Your task to perform on an android device: change text size in settings app Image 0: 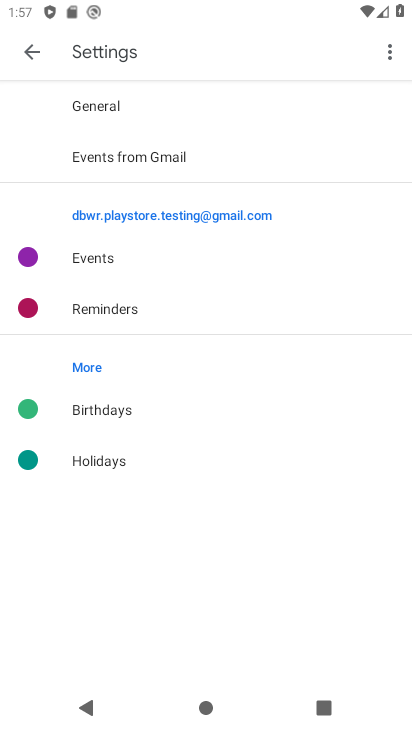
Step 0: press home button
Your task to perform on an android device: change text size in settings app Image 1: 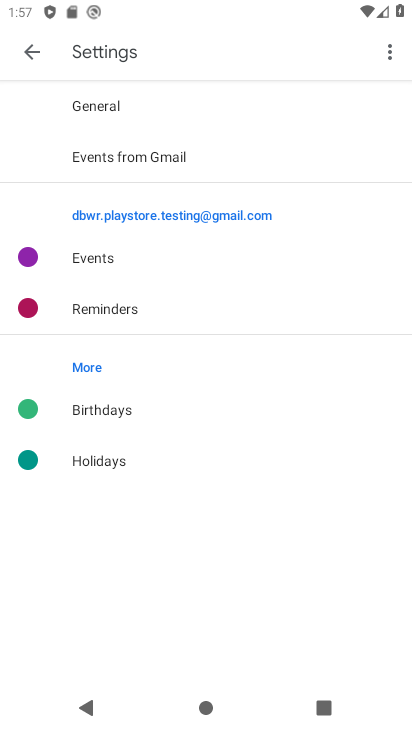
Step 1: press home button
Your task to perform on an android device: change text size in settings app Image 2: 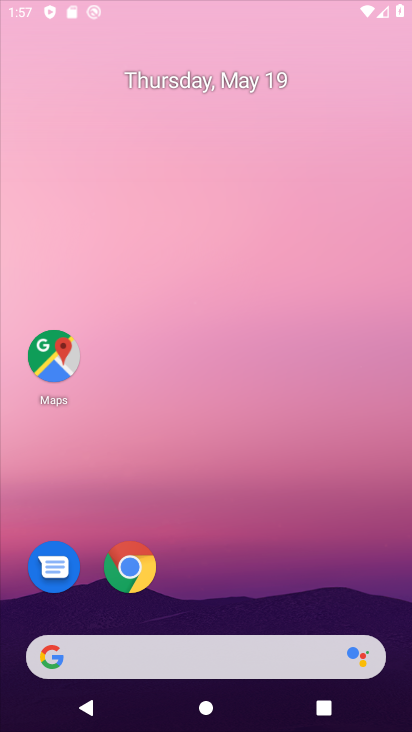
Step 2: press home button
Your task to perform on an android device: change text size in settings app Image 3: 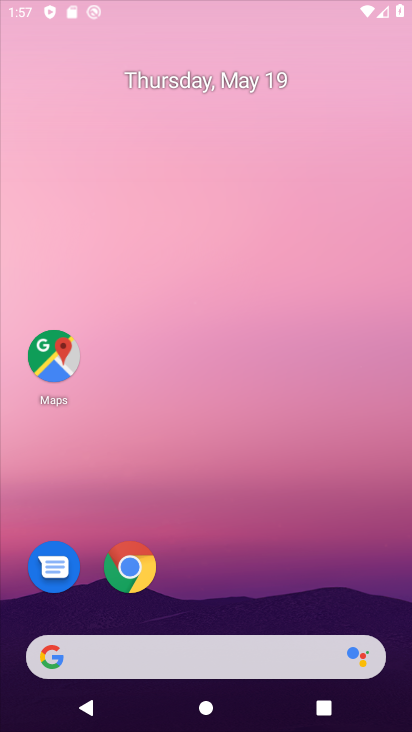
Step 3: press home button
Your task to perform on an android device: change text size in settings app Image 4: 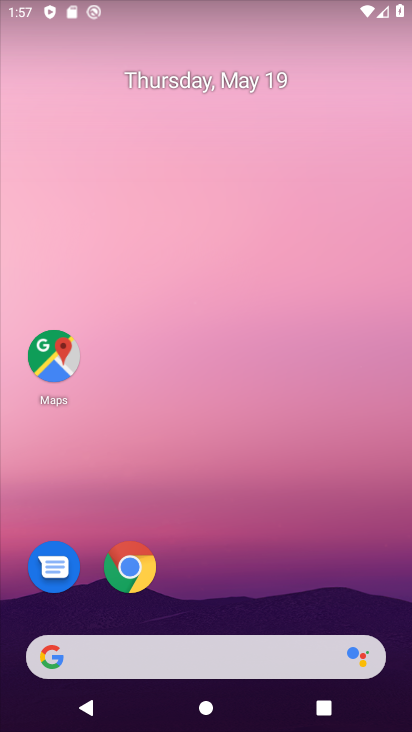
Step 4: press home button
Your task to perform on an android device: change text size in settings app Image 5: 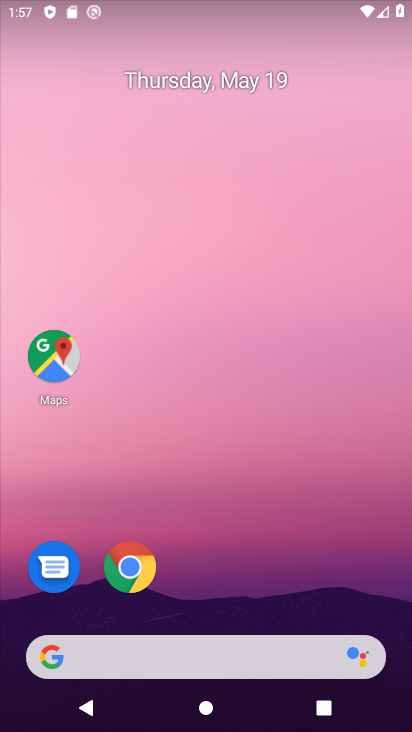
Step 5: drag from (305, 590) to (382, 237)
Your task to perform on an android device: change text size in settings app Image 6: 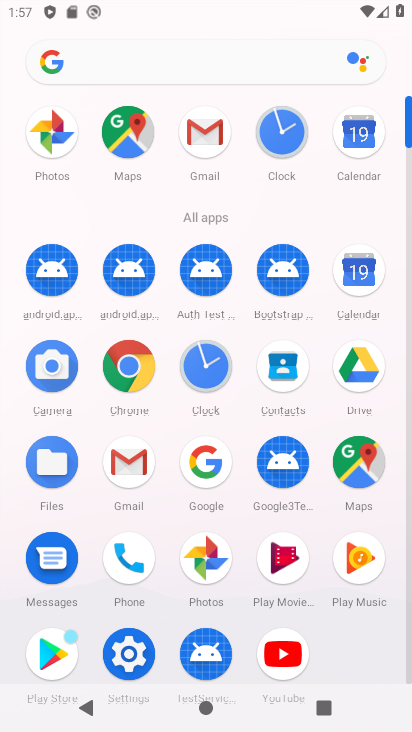
Step 6: click (103, 639)
Your task to perform on an android device: change text size in settings app Image 7: 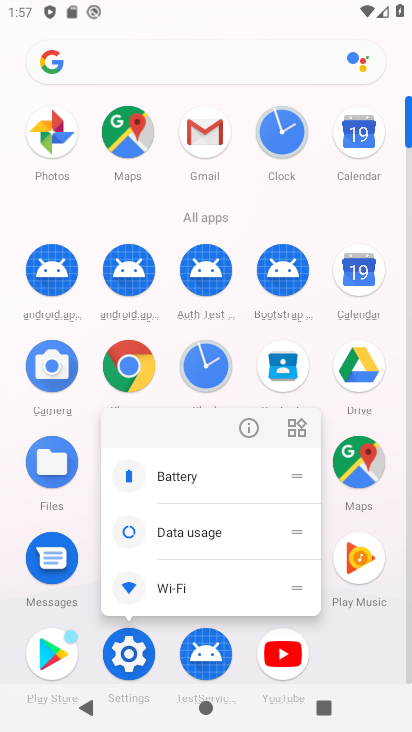
Step 7: click (135, 642)
Your task to perform on an android device: change text size in settings app Image 8: 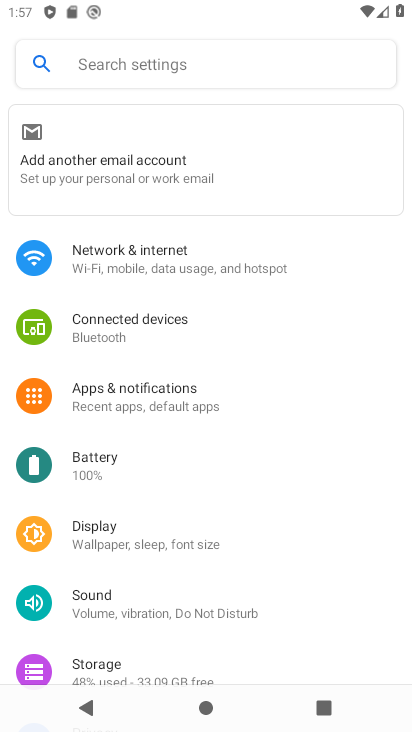
Step 8: click (132, 540)
Your task to perform on an android device: change text size in settings app Image 9: 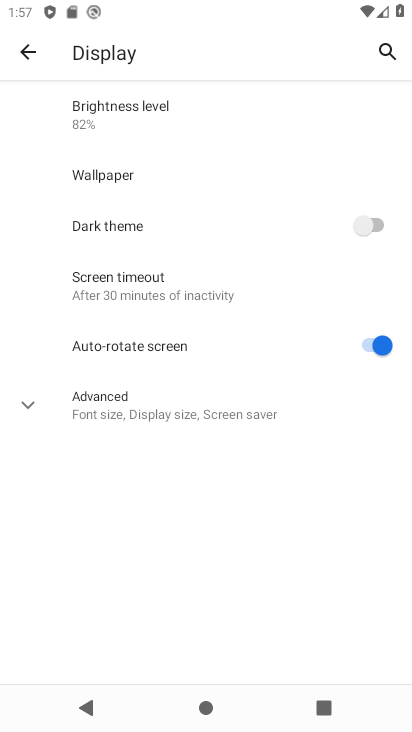
Step 9: click (149, 422)
Your task to perform on an android device: change text size in settings app Image 10: 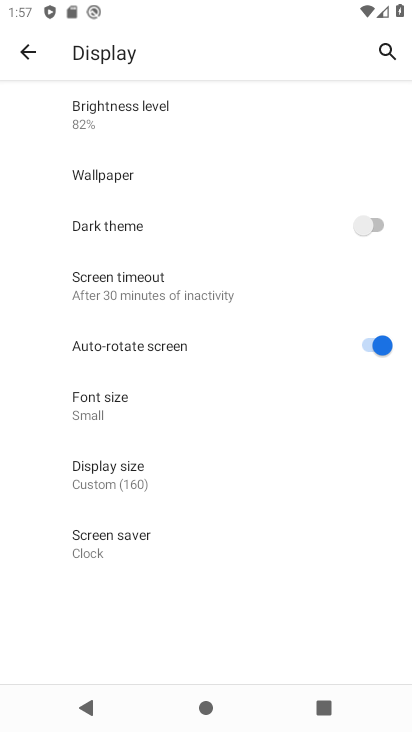
Step 10: click (149, 422)
Your task to perform on an android device: change text size in settings app Image 11: 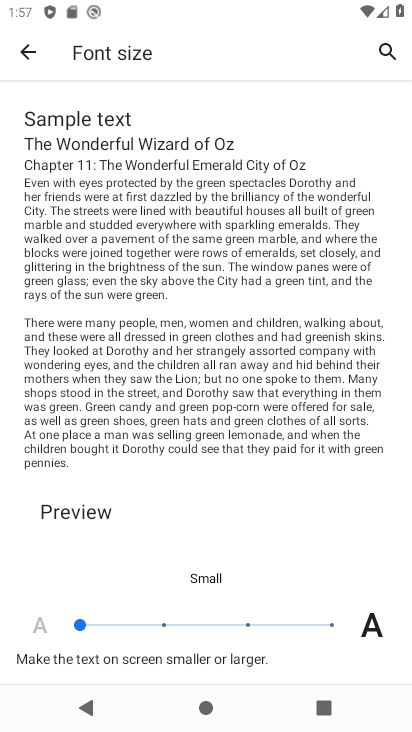
Step 11: click (376, 611)
Your task to perform on an android device: change text size in settings app Image 12: 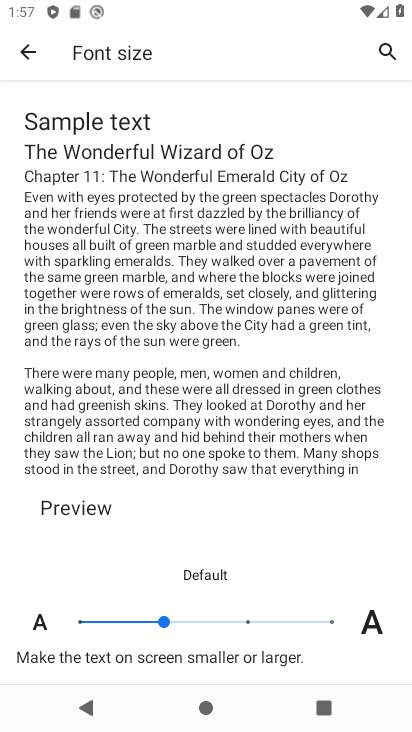
Step 12: click (376, 611)
Your task to perform on an android device: change text size in settings app Image 13: 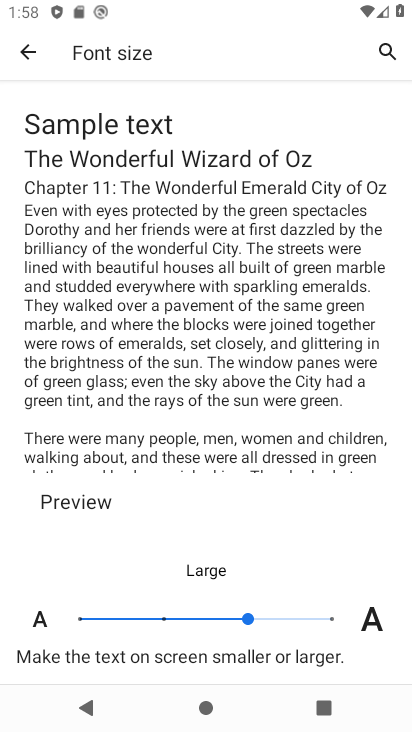
Step 13: task complete